Your task to perform on an android device: Open CNN.com Image 0: 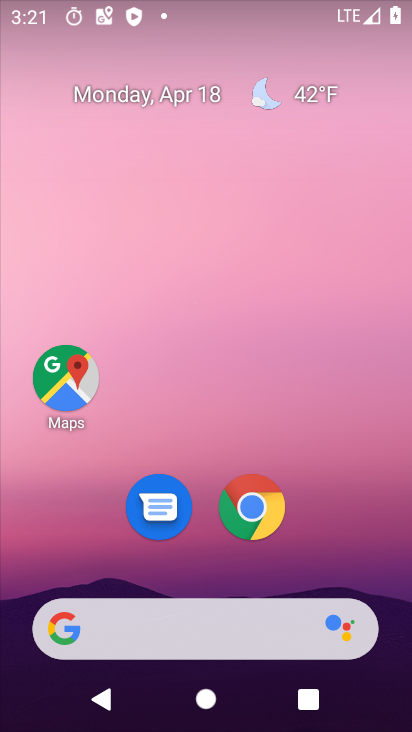
Step 0: click (257, 512)
Your task to perform on an android device: Open CNN.com Image 1: 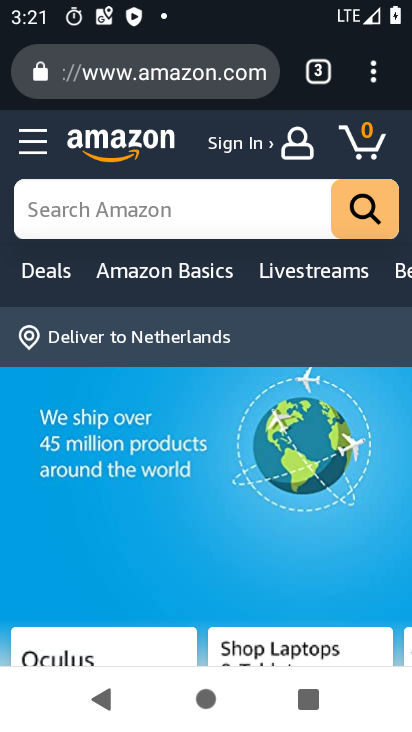
Step 1: click (332, 58)
Your task to perform on an android device: Open CNN.com Image 2: 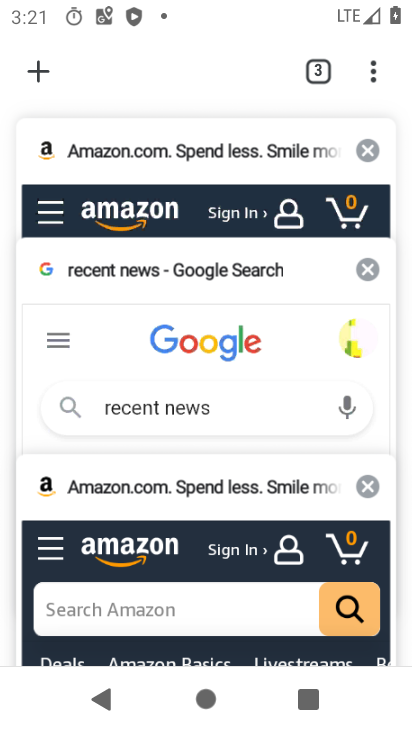
Step 2: click (34, 74)
Your task to perform on an android device: Open CNN.com Image 3: 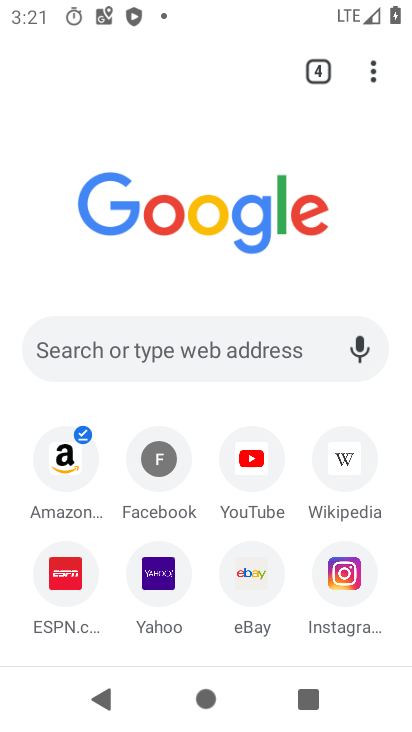
Step 3: click (173, 345)
Your task to perform on an android device: Open CNN.com Image 4: 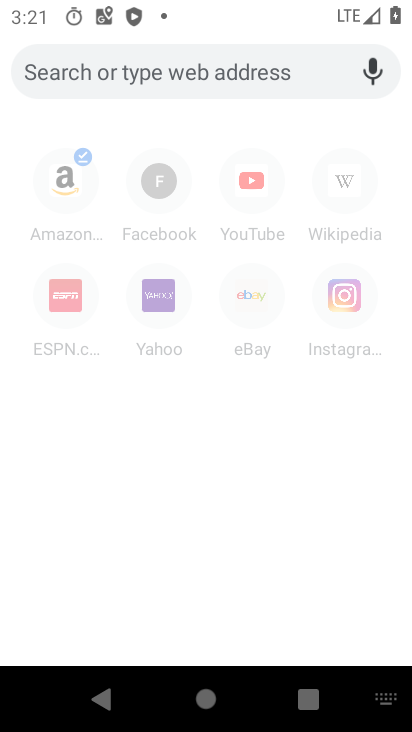
Step 4: type "cnn.com"
Your task to perform on an android device: Open CNN.com Image 5: 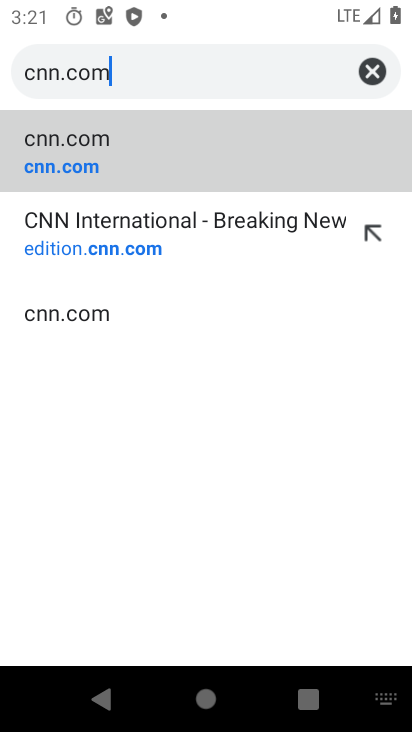
Step 5: click (78, 154)
Your task to perform on an android device: Open CNN.com Image 6: 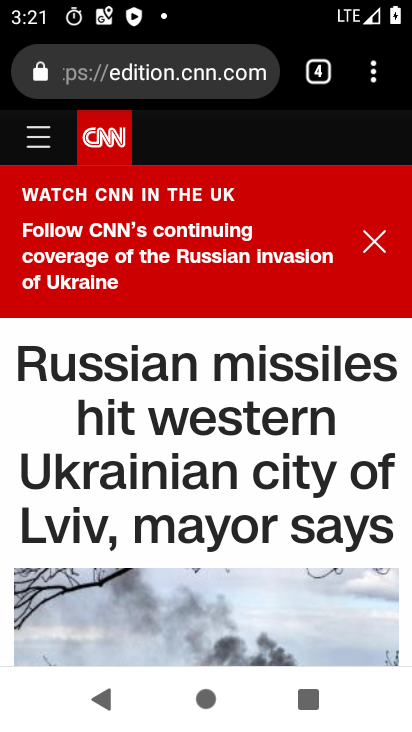
Step 6: task complete